Your task to perform on an android device: Open Chrome and go to the settings page Image 0: 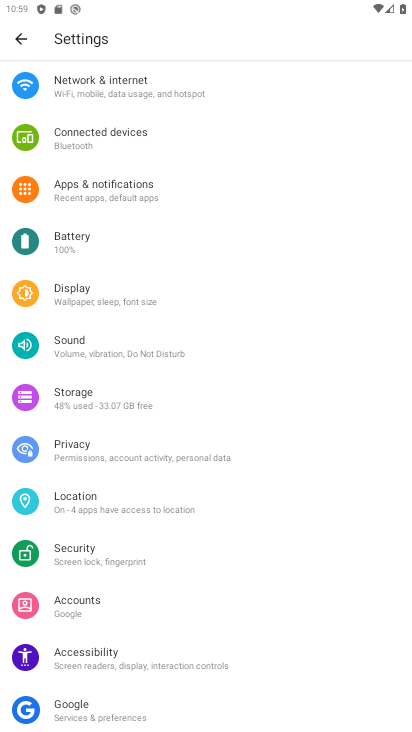
Step 0: press home button
Your task to perform on an android device: Open Chrome and go to the settings page Image 1: 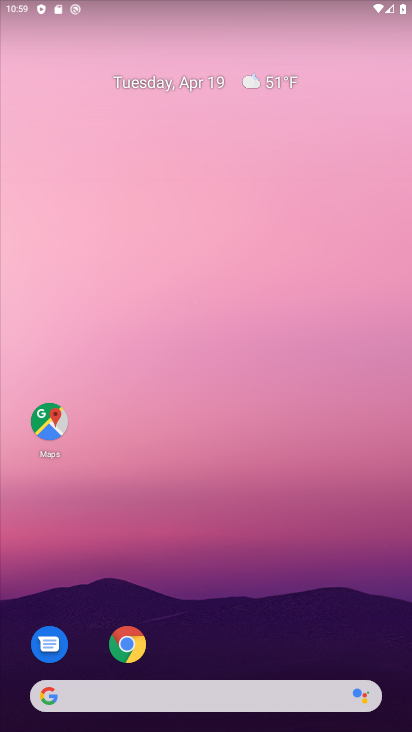
Step 1: click (126, 642)
Your task to perform on an android device: Open Chrome and go to the settings page Image 2: 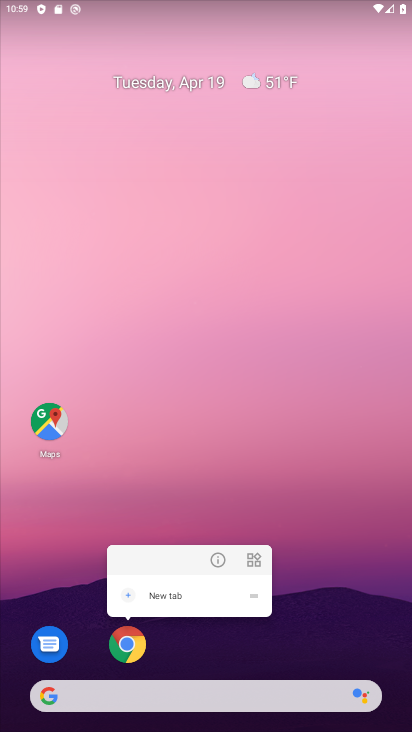
Step 2: click (126, 642)
Your task to perform on an android device: Open Chrome and go to the settings page Image 3: 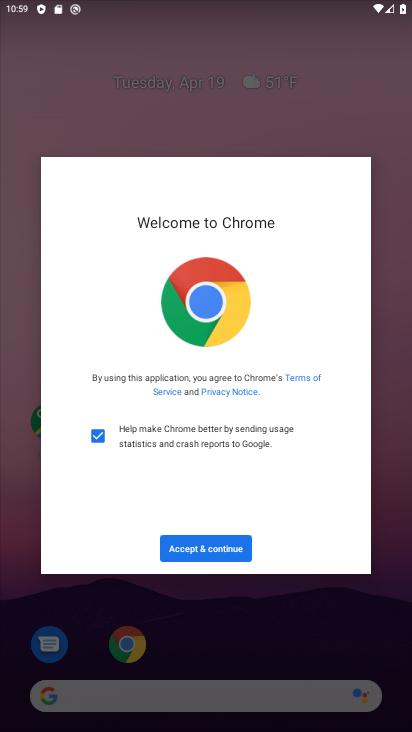
Step 3: click (199, 542)
Your task to perform on an android device: Open Chrome and go to the settings page Image 4: 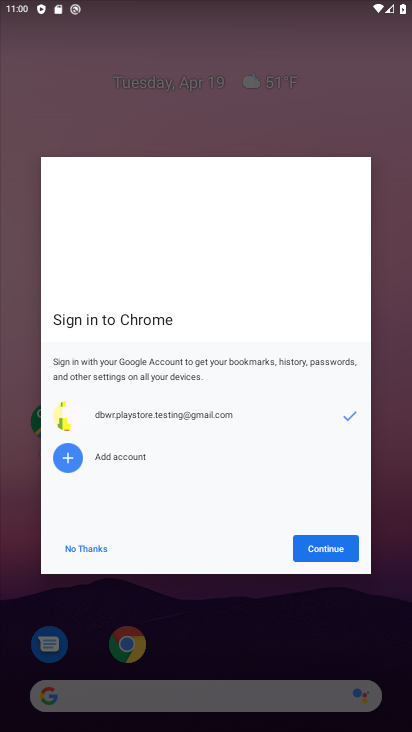
Step 4: click (320, 542)
Your task to perform on an android device: Open Chrome and go to the settings page Image 5: 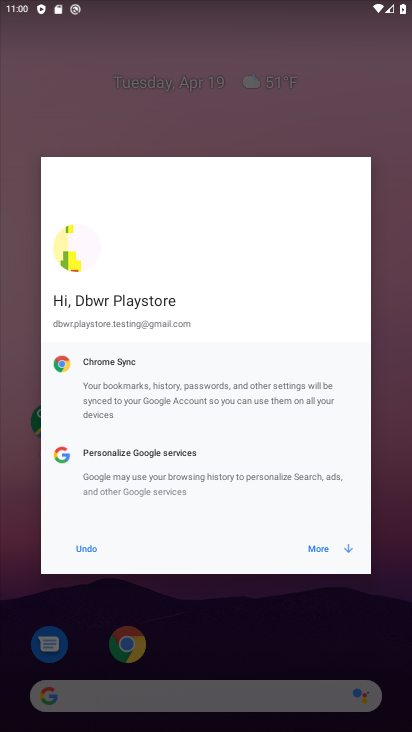
Step 5: click (315, 550)
Your task to perform on an android device: Open Chrome and go to the settings page Image 6: 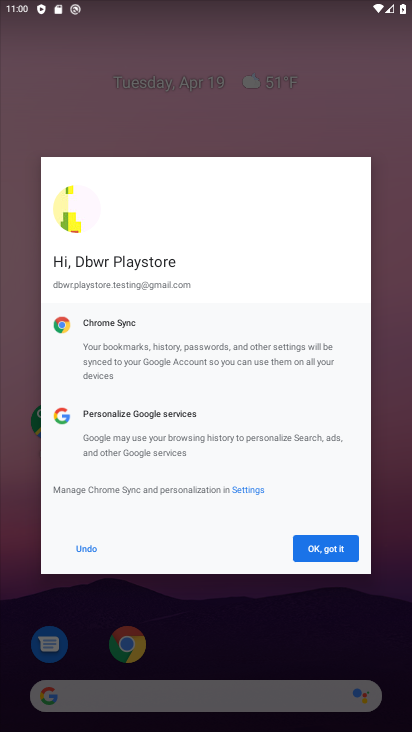
Step 6: click (315, 550)
Your task to perform on an android device: Open Chrome and go to the settings page Image 7: 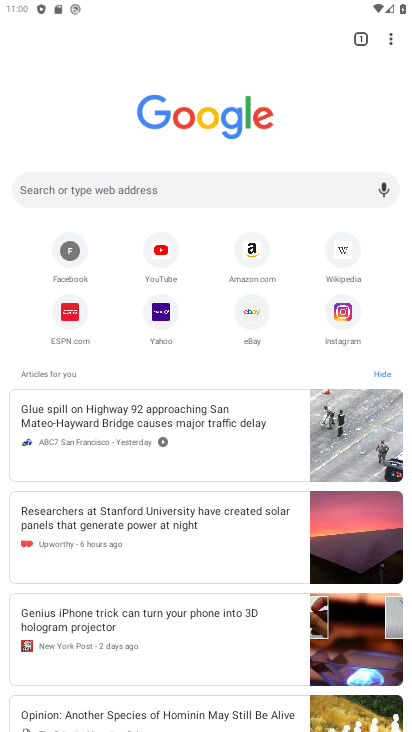
Step 7: task complete